Your task to perform on an android device: turn off translation in the chrome app Image 0: 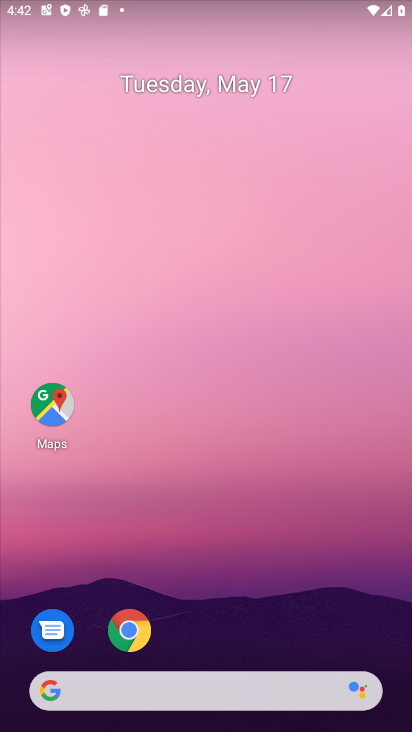
Step 0: click (134, 631)
Your task to perform on an android device: turn off translation in the chrome app Image 1: 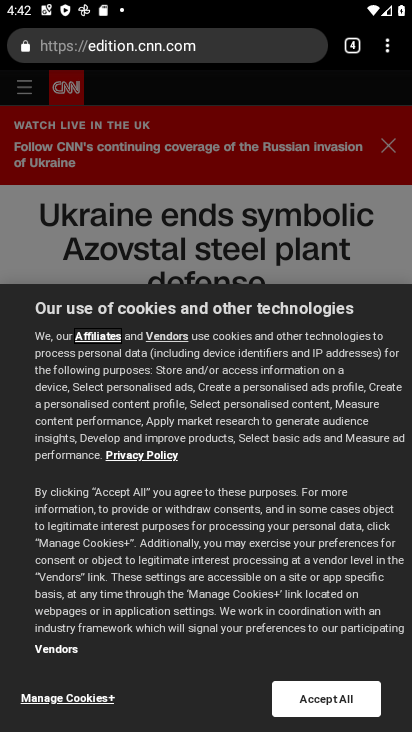
Step 1: click (389, 64)
Your task to perform on an android device: turn off translation in the chrome app Image 2: 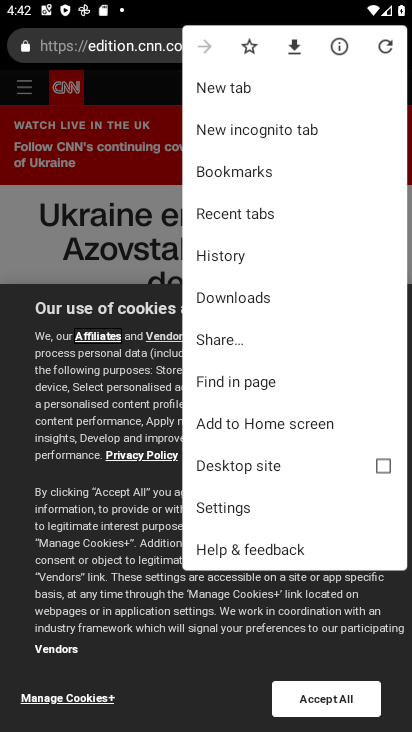
Step 2: click (227, 504)
Your task to perform on an android device: turn off translation in the chrome app Image 3: 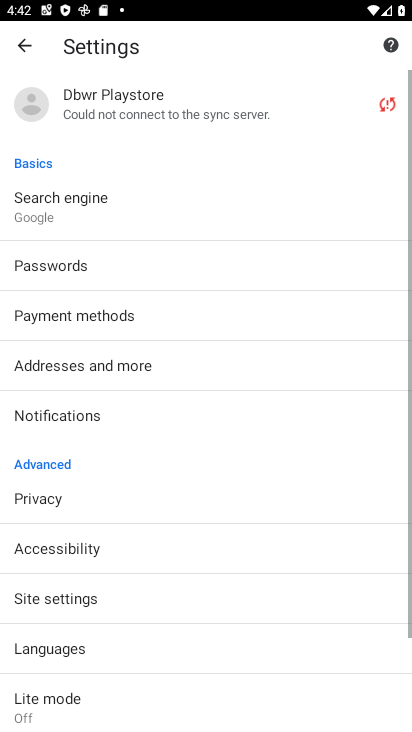
Step 3: drag from (80, 650) to (82, 420)
Your task to perform on an android device: turn off translation in the chrome app Image 4: 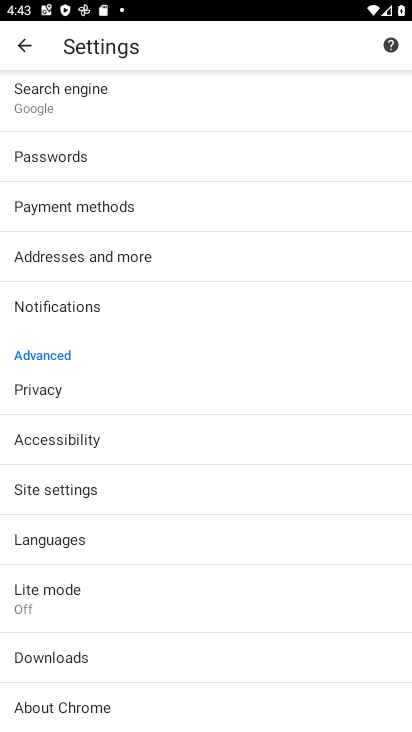
Step 4: click (63, 540)
Your task to perform on an android device: turn off translation in the chrome app Image 5: 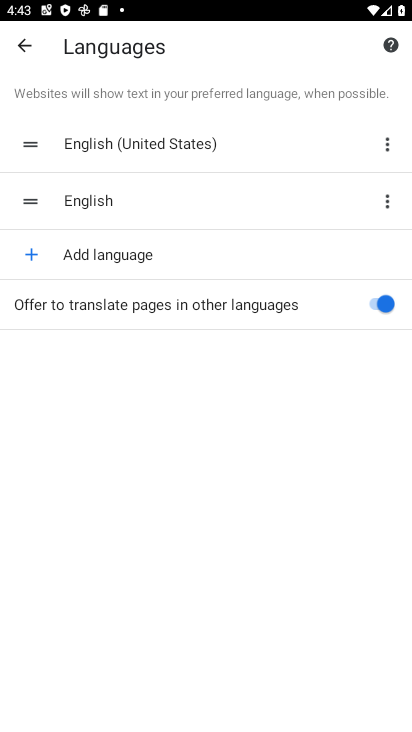
Step 5: click (374, 301)
Your task to perform on an android device: turn off translation in the chrome app Image 6: 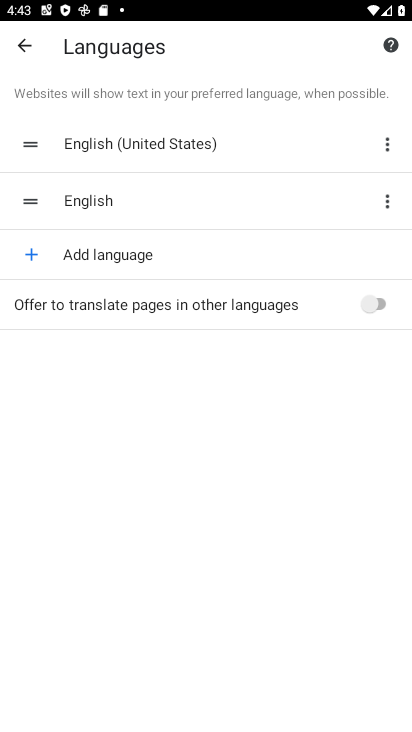
Step 6: task complete